Your task to perform on an android device: Empty the shopping cart on amazon.com. Search for bose soundlink on amazon.com, select the first entry, and add it to the cart. Image 0: 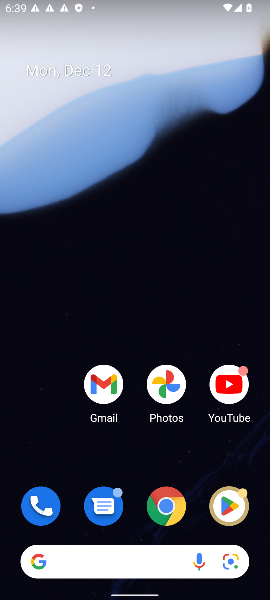
Step 0: click (143, 562)
Your task to perform on an android device: Empty the shopping cart on amazon.com. Search for bose soundlink on amazon.com, select the first entry, and add it to the cart. Image 1: 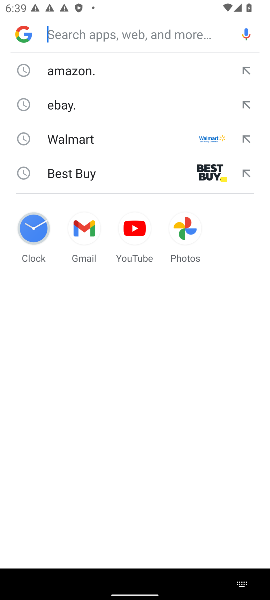
Step 1: click (80, 72)
Your task to perform on an android device: Empty the shopping cart on amazon.com. Search for bose soundlink on amazon.com, select the first entry, and add it to the cart. Image 2: 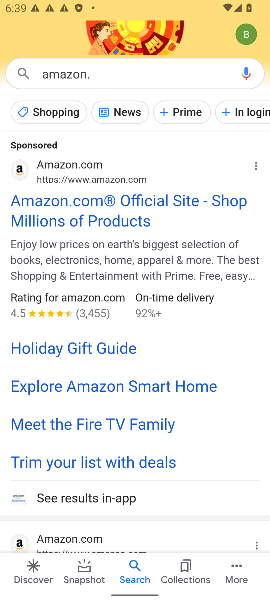
Step 2: click (79, 201)
Your task to perform on an android device: Empty the shopping cart on amazon.com. Search for bose soundlink on amazon.com, select the first entry, and add it to the cart. Image 3: 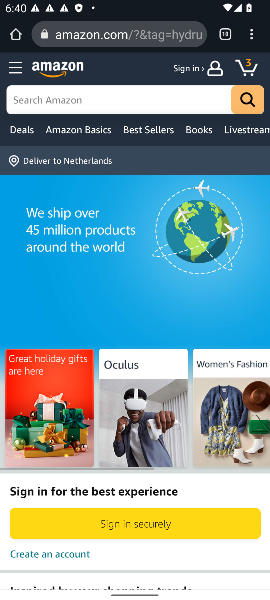
Step 3: click (105, 107)
Your task to perform on an android device: Empty the shopping cart on amazon.com. Search for bose soundlink on amazon.com, select the first entry, and add it to the cart. Image 4: 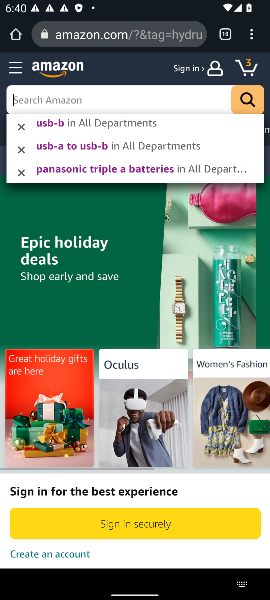
Step 4: type "bose soundlink"
Your task to perform on an android device: Empty the shopping cart on amazon.com. Search for bose soundlink on amazon.com, select the first entry, and add it to the cart. Image 5: 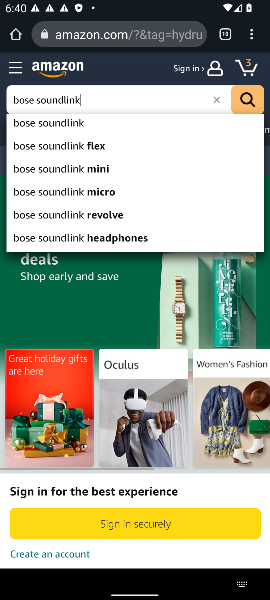
Step 5: click (250, 107)
Your task to perform on an android device: Empty the shopping cart on amazon.com. Search for bose soundlink on amazon.com, select the first entry, and add it to the cart. Image 6: 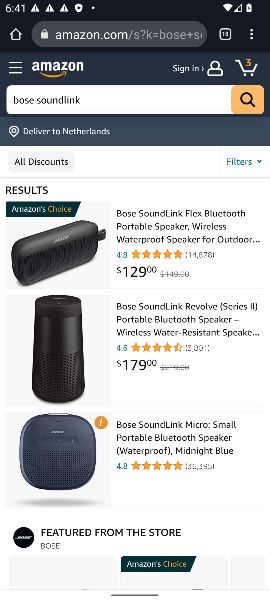
Step 6: click (183, 210)
Your task to perform on an android device: Empty the shopping cart on amazon.com. Search for bose soundlink on amazon.com, select the first entry, and add it to the cart. Image 7: 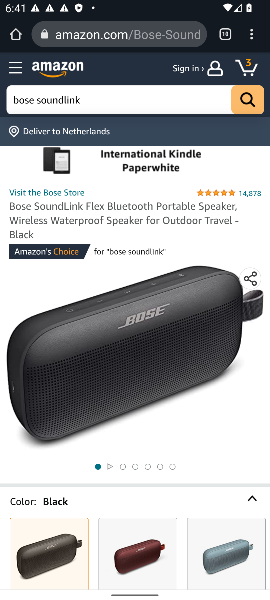
Step 7: drag from (167, 395) to (142, 252)
Your task to perform on an android device: Empty the shopping cart on amazon.com. Search for bose soundlink on amazon.com, select the first entry, and add it to the cart. Image 8: 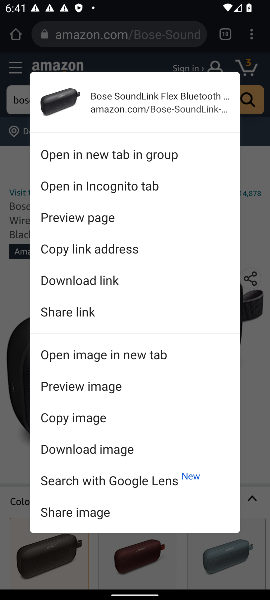
Step 8: click (245, 511)
Your task to perform on an android device: Empty the shopping cart on amazon.com. Search for bose soundlink on amazon.com, select the first entry, and add it to the cart. Image 9: 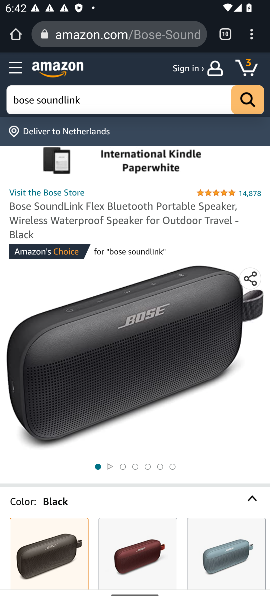
Step 9: drag from (202, 438) to (185, 383)
Your task to perform on an android device: Empty the shopping cart on amazon.com. Search for bose soundlink on amazon.com, select the first entry, and add it to the cart. Image 10: 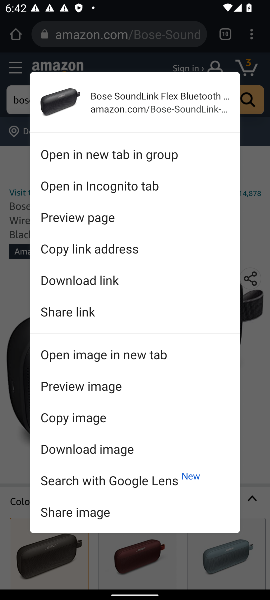
Step 10: click (250, 476)
Your task to perform on an android device: Empty the shopping cart on amazon.com. Search for bose soundlink on amazon.com, select the first entry, and add it to the cart. Image 11: 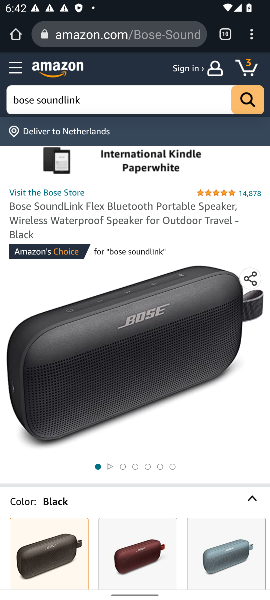
Step 11: drag from (193, 467) to (145, 225)
Your task to perform on an android device: Empty the shopping cart on amazon.com. Search for bose soundlink on amazon.com, select the first entry, and add it to the cart. Image 12: 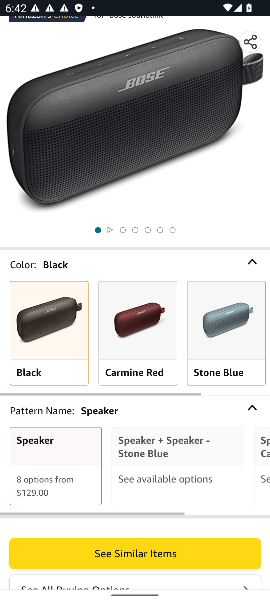
Step 12: drag from (163, 528) to (136, 259)
Your task to perform on an android device: Empty the shopping cart on amazon.com. Search for bose soundlink on amazon.com, select the first entry, and add it to the cart. Image 13: 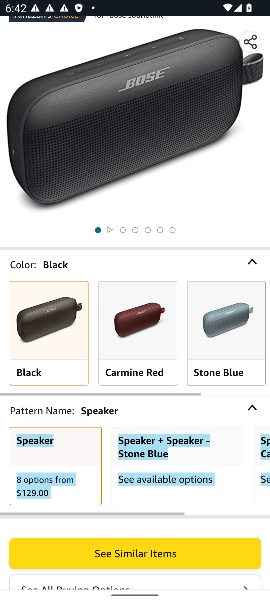
Step 13: click (179, 277)
Your task to perform on an android device: Empty the shopping cart on amazon.com. Search for bose soundlink on amazon.com, select the first entry, and add it to the cart. Image 14: 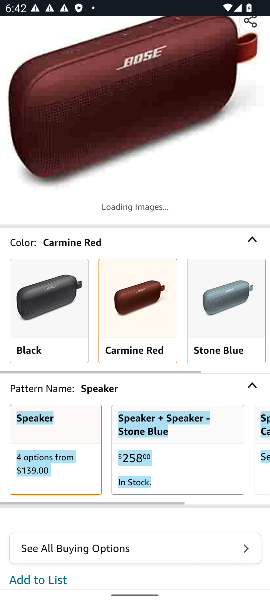
Step 14: drag from (176, 527) to (169, 359)
Your task to perform on an android device: Empty the shopping cart on amazon.com. Search for bose soundlink on amazon.com, select the first entry, and add it to the cart. Image 15: 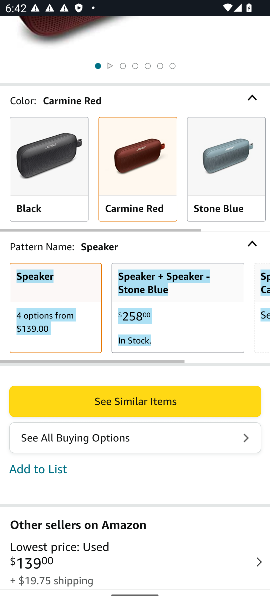
Step 15: click (152, 535)
Your task to perform on an android device: Empty the shopping cart on amazon.com. Search for bose soundlink on amazon.com, select the first entry, and add it to the cart. Image 16: 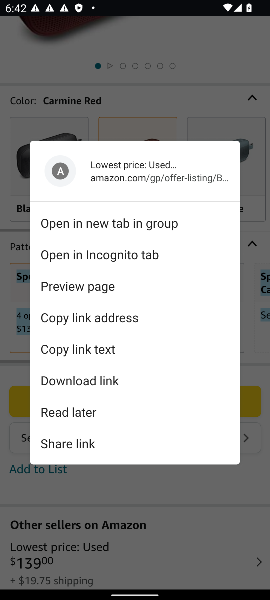
Step 16: click (148, 516)
Your task to perform on an android device: Empty the shopping cart on amazon.com. Search for bose soundlink on amazon.com, select the first entry, and add it to the cart. Image 17: 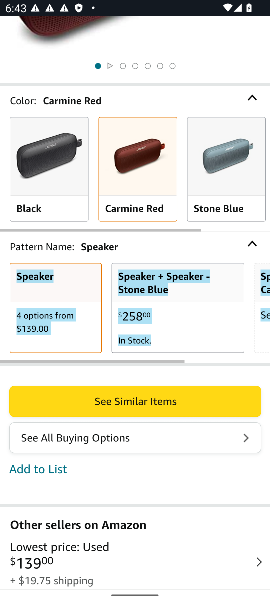
Step 17: task complete